Your task to perform on an android device: uninstall "LinkedIn" Image 0: 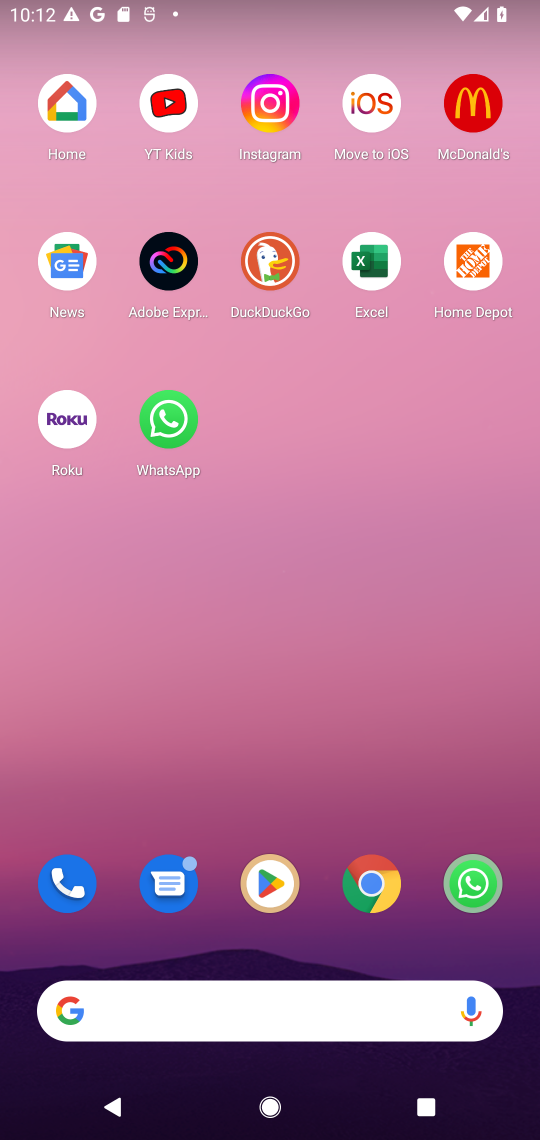
Step 0: press home button
Your task to perform on an android device: uninstall "LinkedIn" Image 1: 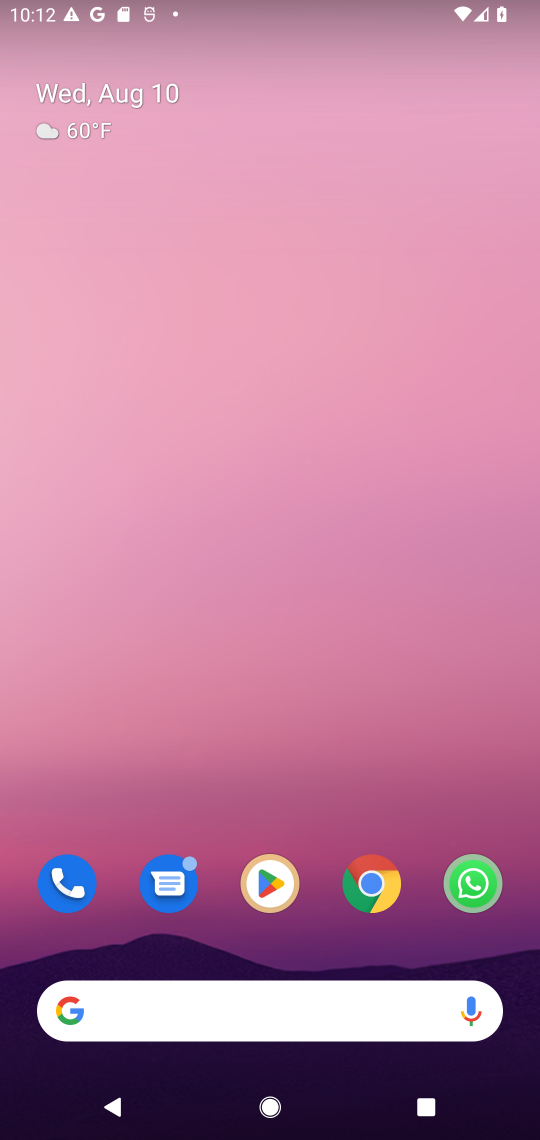
Step 1: drag from (406, 679) to (379, 45)
Your task to perform on an android device: uninstall "LinkedIn" Image 2: 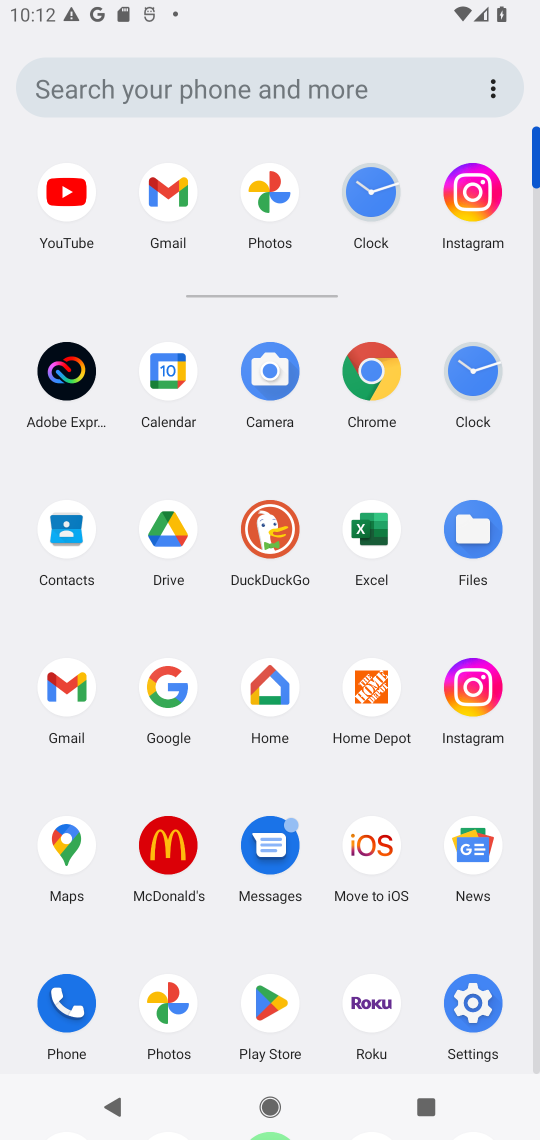
Step 2: click (254, 1008)
Your task to perform on an android device: uninstall "LinkedIn" Image 3: 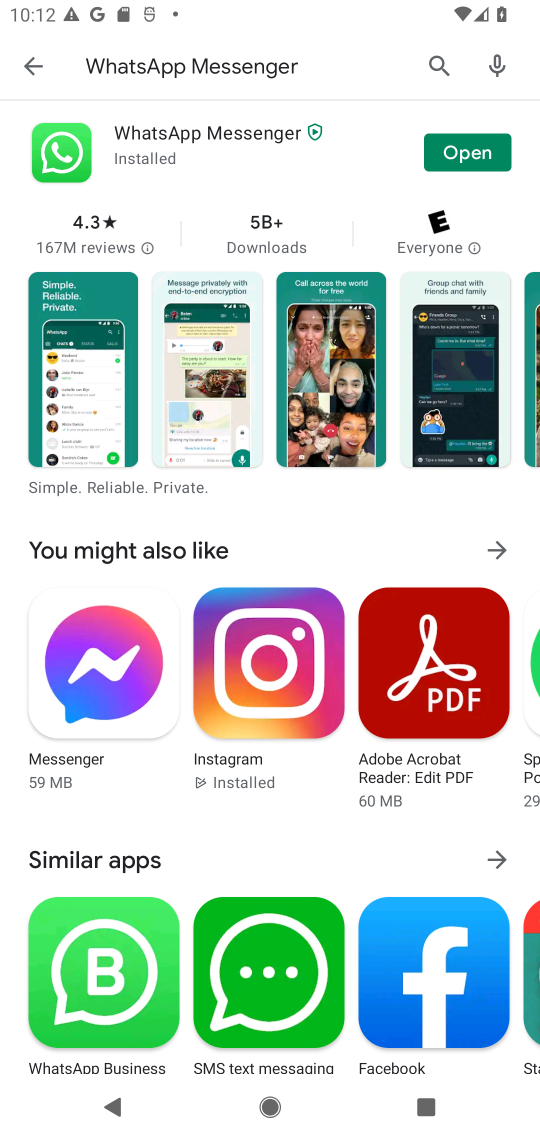
Step 3: click (442, 61)
Your task to perform on an android device: uninstall "LinkedIn" Image 4: 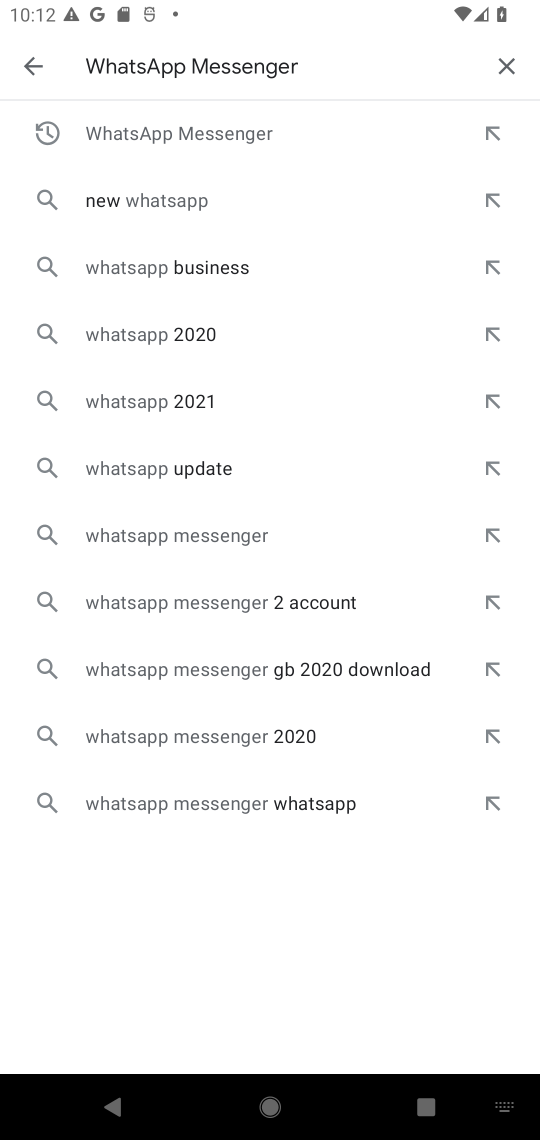
Step 4: click (501, 57)
Your task to perform on an android device: uninstall "LinkedIn" Image 5: 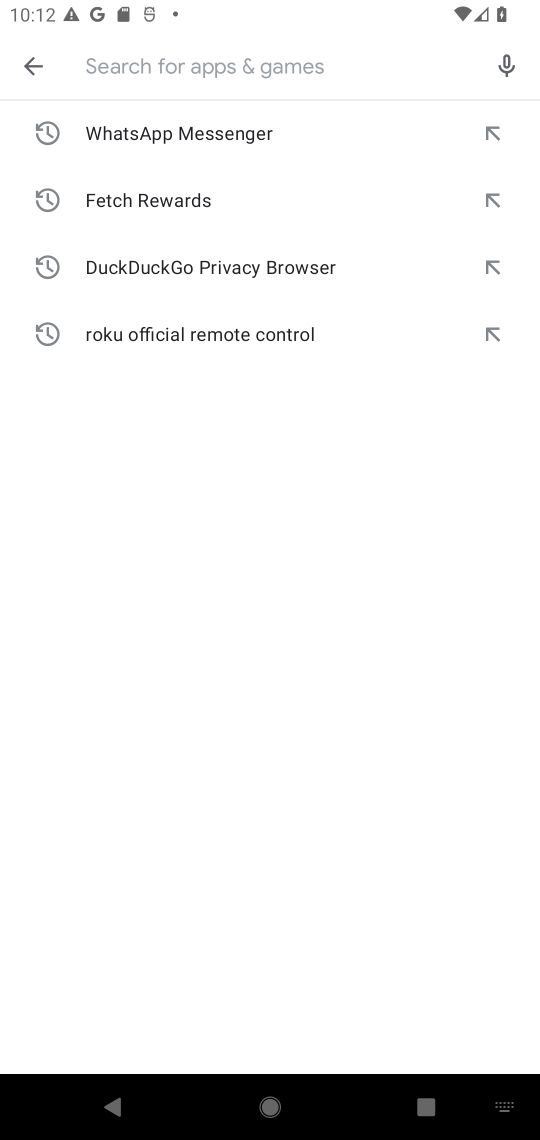
Step 5: press enter
Your task to perform on an android device: uninstall "LinkedIn" Image 6: 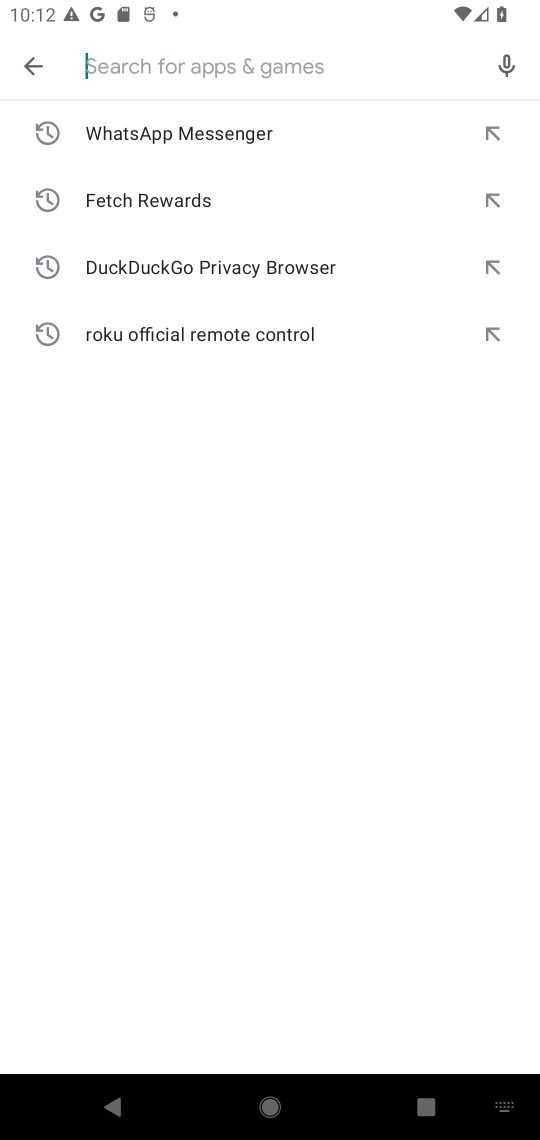
Step 6: type "linkedin"
Your task to perform on an android device: uninstall "LinkedIn" Image 7: 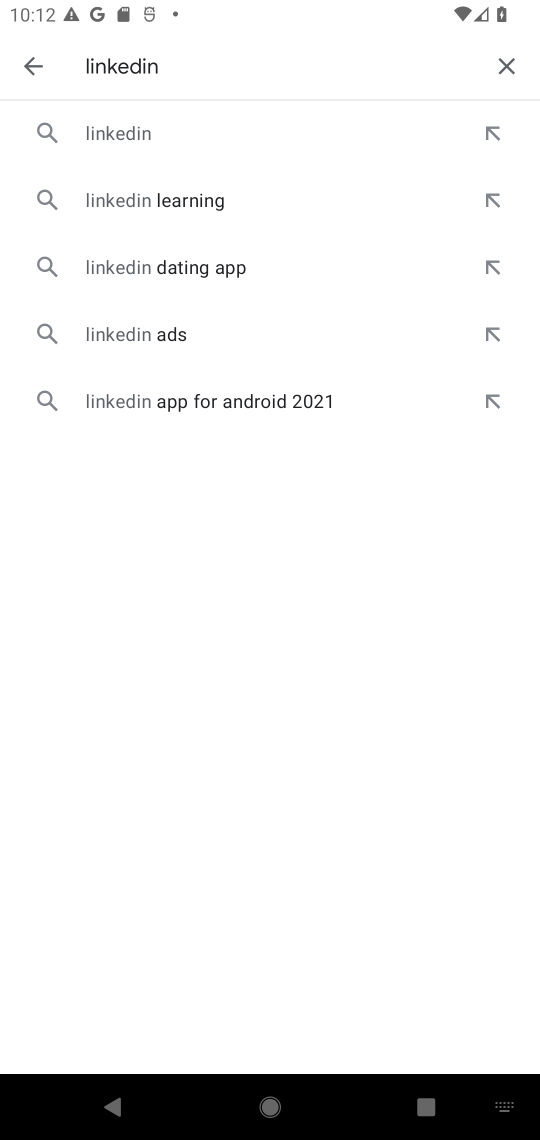
Step 7: click (144, 135)
Your task to perform on an android device: uninstall "LinkedIn" Image 8: 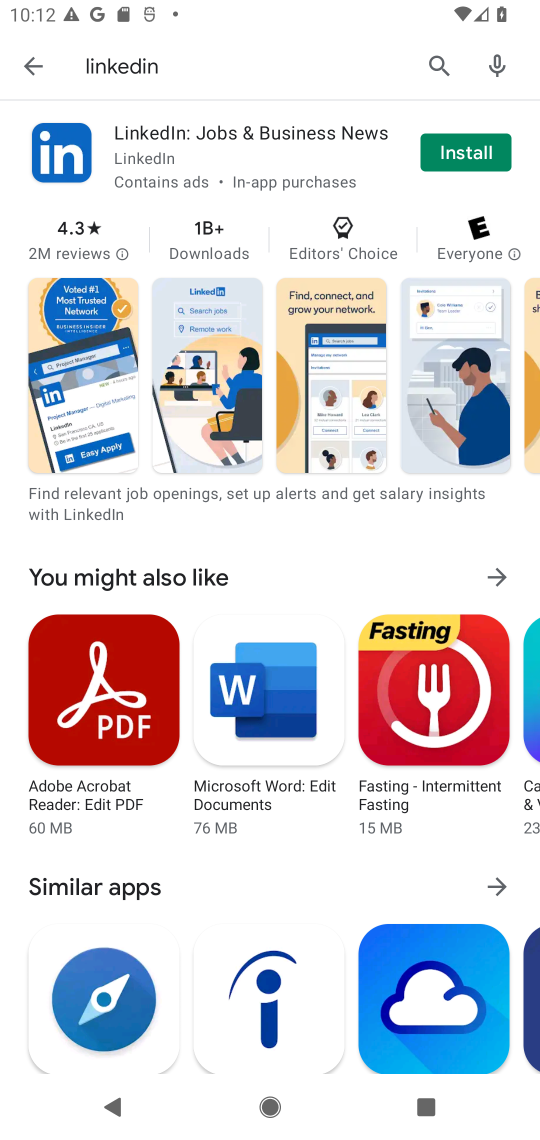
Step 8: task complete